Your task to perform on an android device: What's the weather? Image 0: 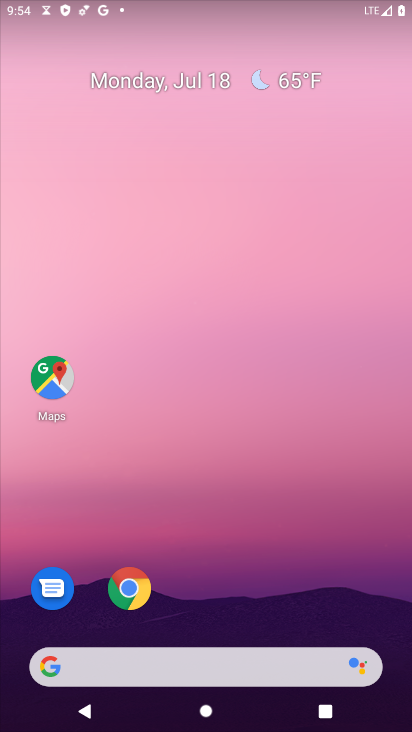
Step 0: drag from (219, 672) to (286, 129)
Your task to perform on an android device: What's the weather? Image 1: 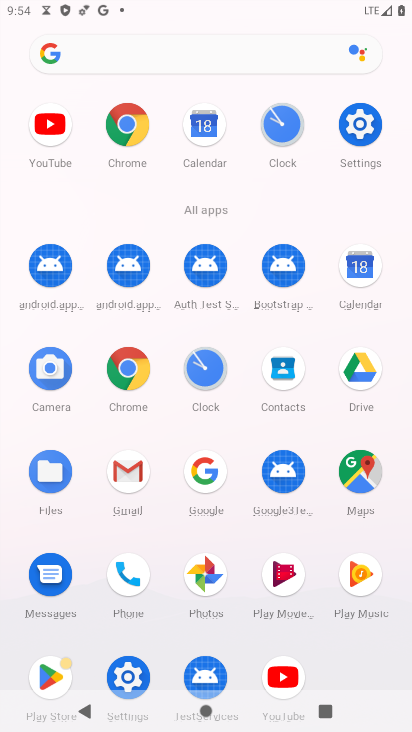
Step 1: click (201, 470)
Your task to perform on an android device: What's the weather? Image 2: 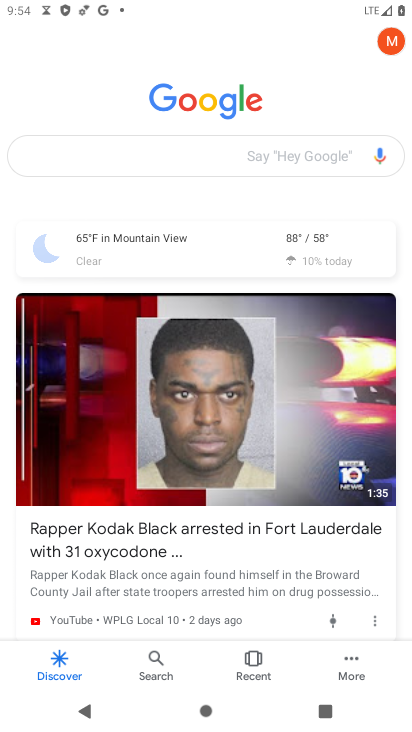
Step 2: click (134, 239)
Your task to perform on an android device: What's the weather? Image 3: 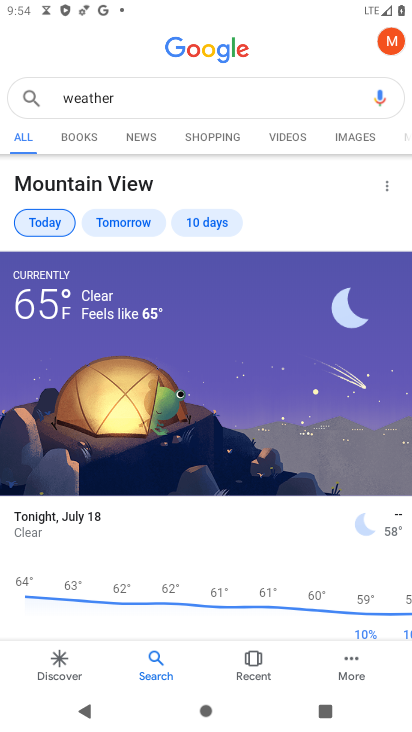
Step 3: task complete